Your task to perform on an android device: open a bookmark in the chrome app Image 0: 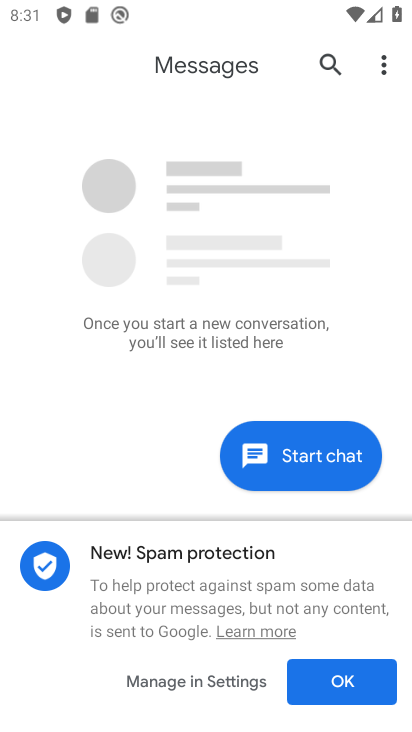
Step 0: press back button
Your task to perform on an android device: open a bookmark in the chrome app Image 1: 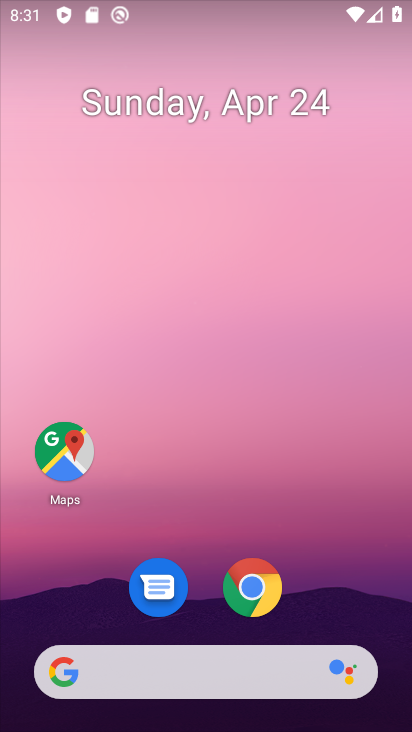
Step 1: click (261, 581)
Your task to perform on an android device: open a bookmark in the chrome app Image 2: 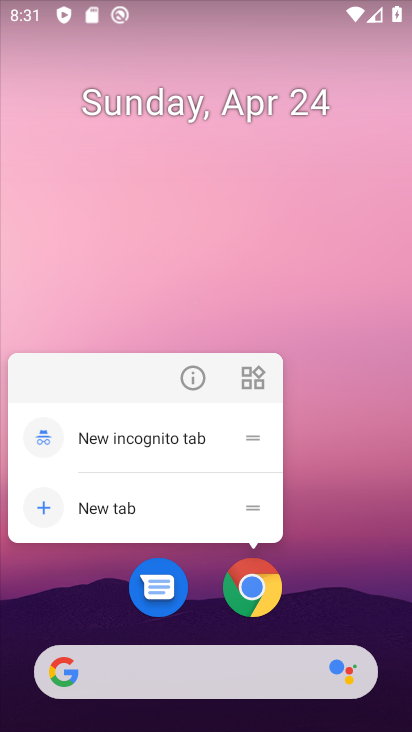
Step 2: click (262, 572)
Your task to perform on an android device: open a bookmark in the chrome app Image 3: 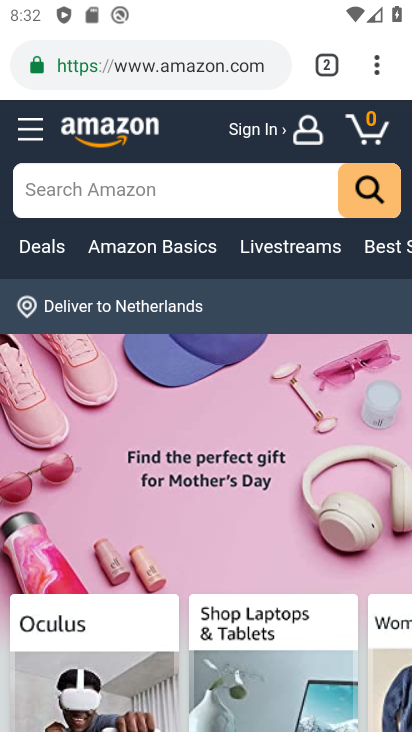
Step 3: drag from (380, 69) to (203, 325)
Your task to perform on an android device: open a bookmark in the chrome app Image 4: 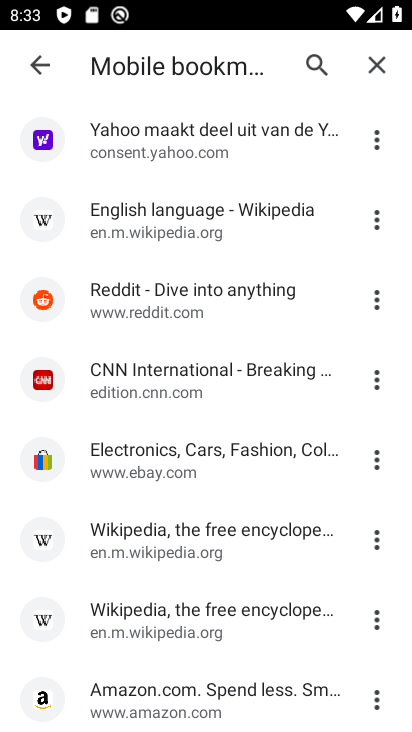
Step 4: click (132, 137)
Your task to perform on an android device: open a bookmark in the chrome app Image 5: 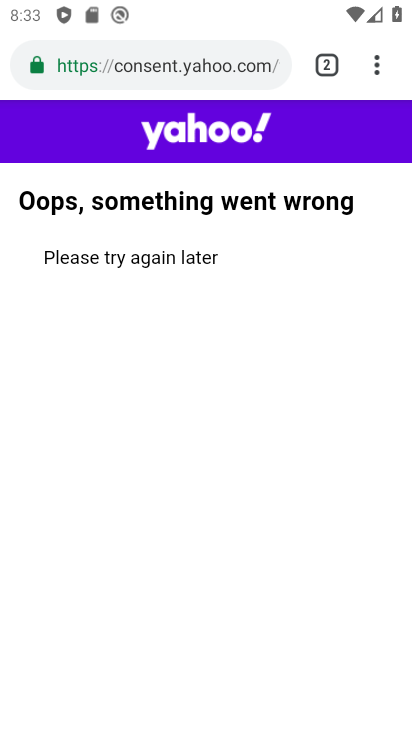
Step 5: task complete